Your task to perform on an android device: Search for Italian restaurants on Maps Image 0: 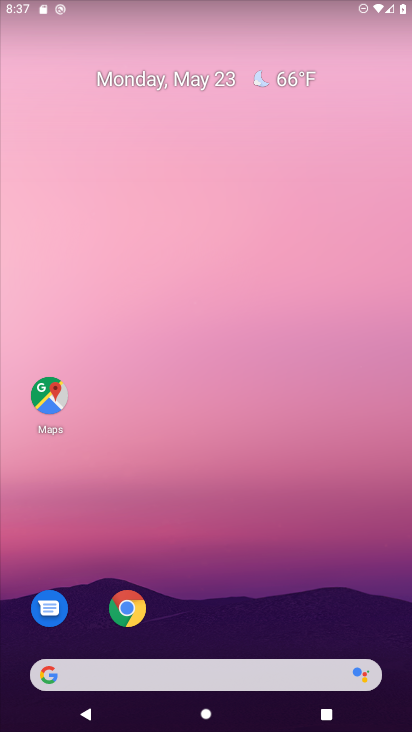
Step 0: drag from (251, 724) to (238, 21)
Your task to perform on an android device: Search for Italian restaurants on Maps Image 1: 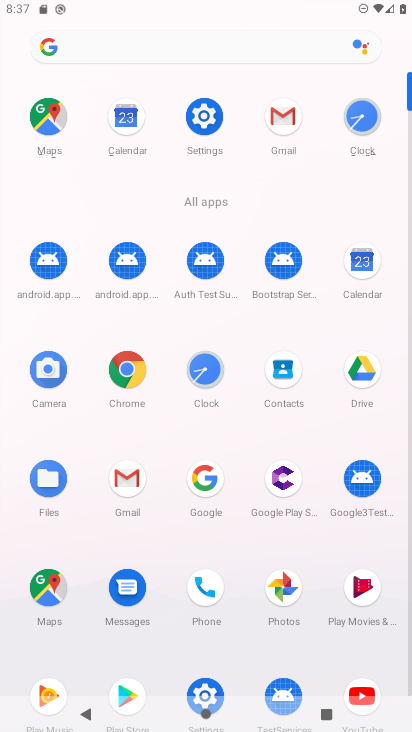
Step 1: click (41, 583)
Your task to perform on an android device: Search for Italian restaurants on Maps Image 2: 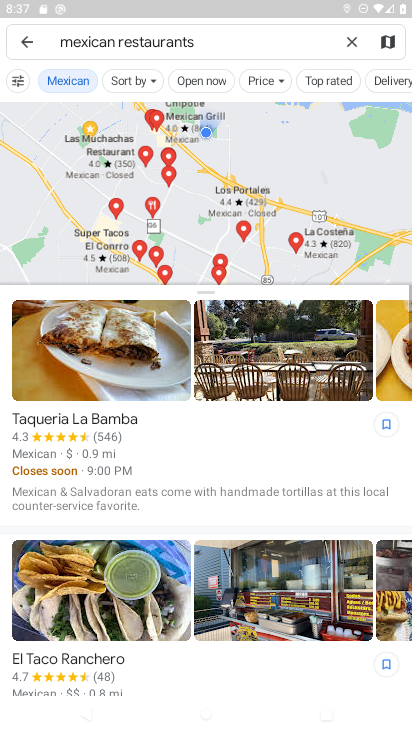
Step 2: click (354, 41)
Your task to perform on an android device: Search for Italian restaurants on Maps Image 3: 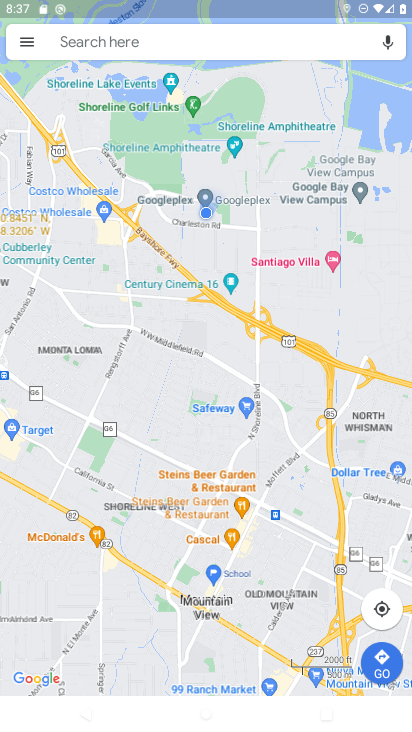
Step 3: click (211, 42)
Your task to perform on an android device: Search for Italian restaurants on Maps Image 4: 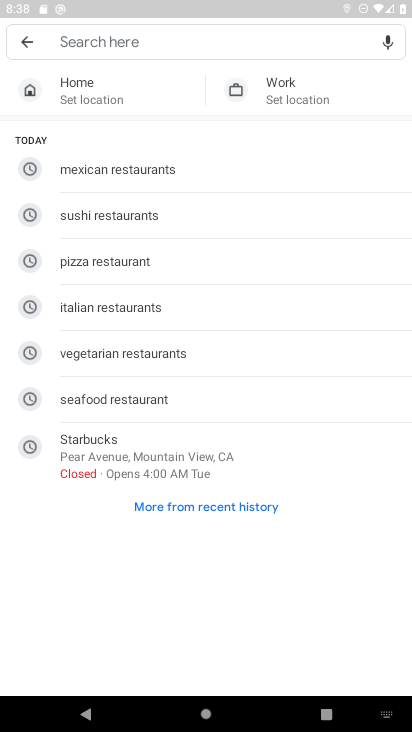
Step 4: type "italian restaurants"
Your task to perform on an android device: Search for Italian restaurants on Maps Image 5: 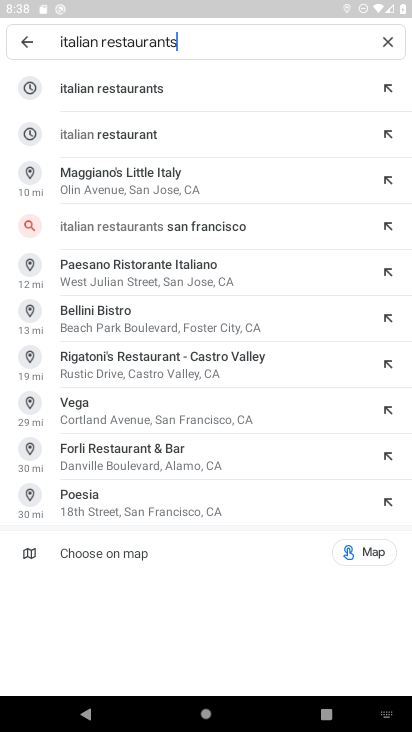
Step 5: click (134, 83)
Your task to perform on an android device: Search for Italian restaurants on Maps Image 6: 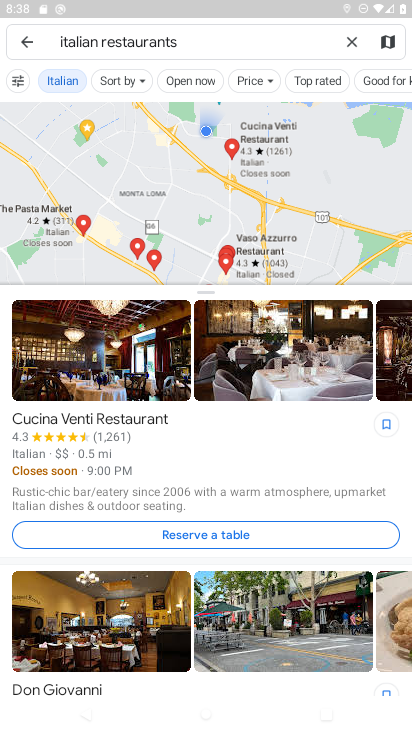
Step 6: task complete